Your task to perform on an android device: turn on priority inbox in the gmail app Image 0: 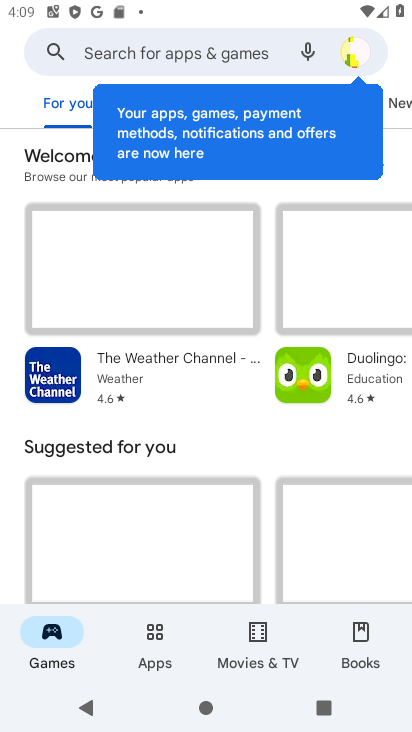
Step 0: press back button
Your task to perform on an android device: turn on priority inbox in the gmail app Image 1: 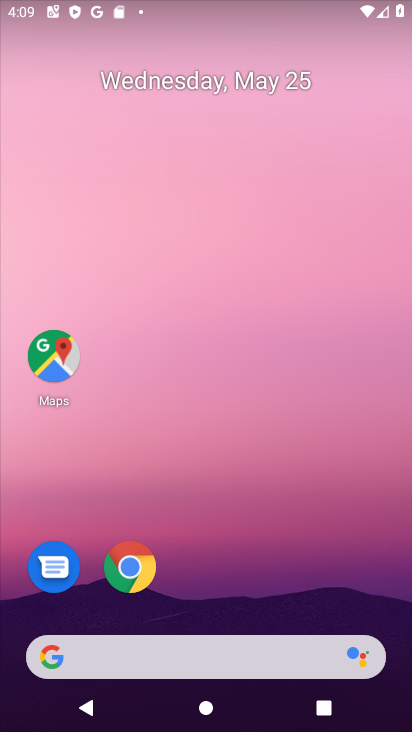
Step 1: drag from (277, 537) to (234, 22)
Your task to perform on an android device: turn on priority inbox in the gmail app Image 2: 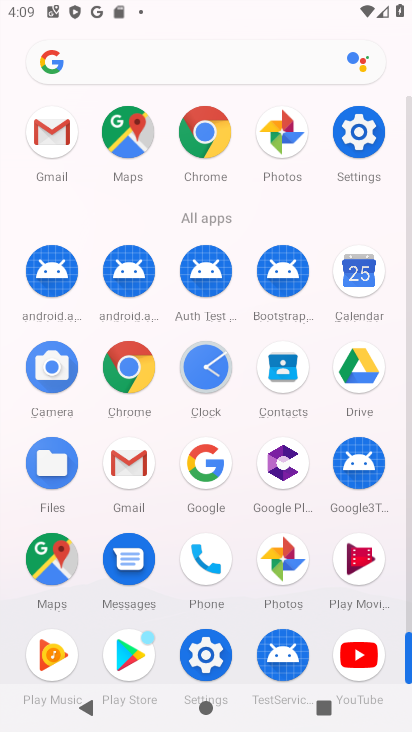
Step 2: drag from (9, 575) to (20, 219)
Your task to perform on an android device: turn on priority inbox in the gmail app Image 3: 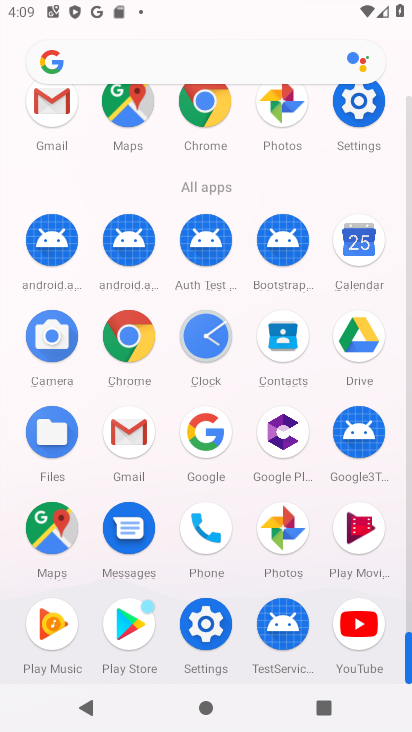
Step 3: click (132, 427)
Your task to perform on an android device: turn on priority inbox in the gmail app Image 4: 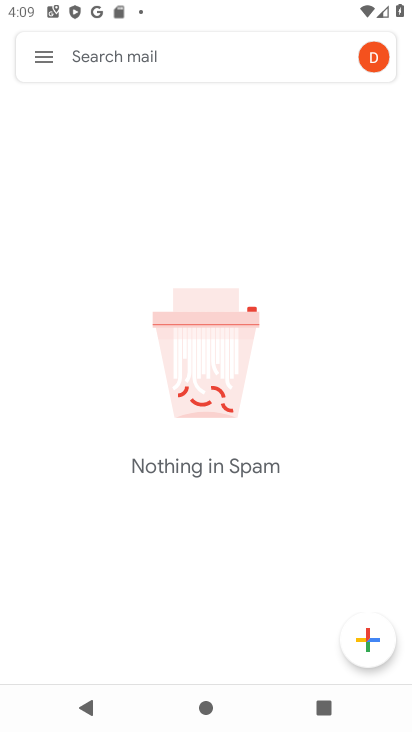
Step 4: click (43, 59)
Your task to perform on an android device: turn on priority inbox in the gmail app Image 5: 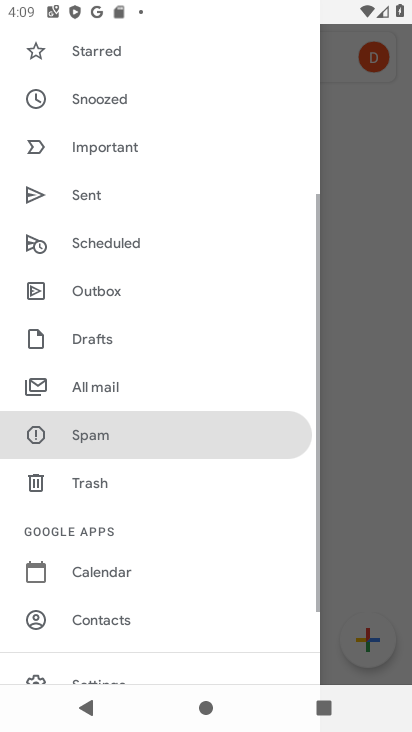
Step 5: drag from (160, 603) to (168, 130)
Your task to perform on an android device: turn on priority inbox in the gmail app Image 6: 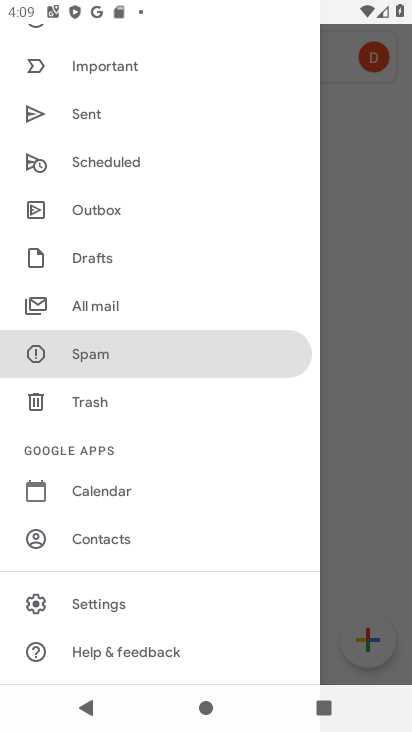
Step 6: click (112, 599)
Your task to perform on an android device: turn on priority inbox in the gmail app Image 7: 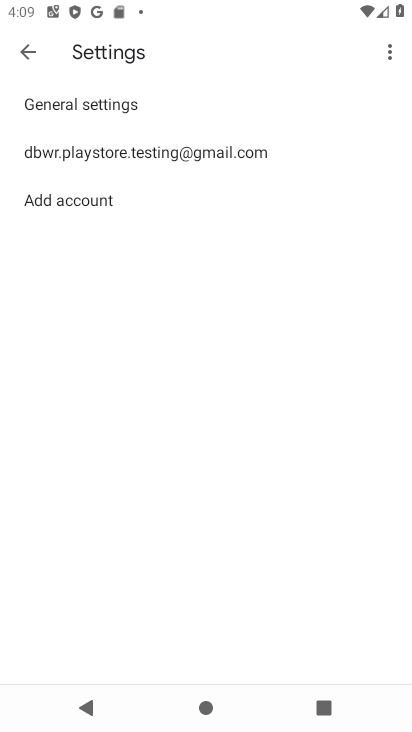
Step 7: click (170, 153)
Your task to perform on an android device: turn on priority inbox in the gmail app Image 8: 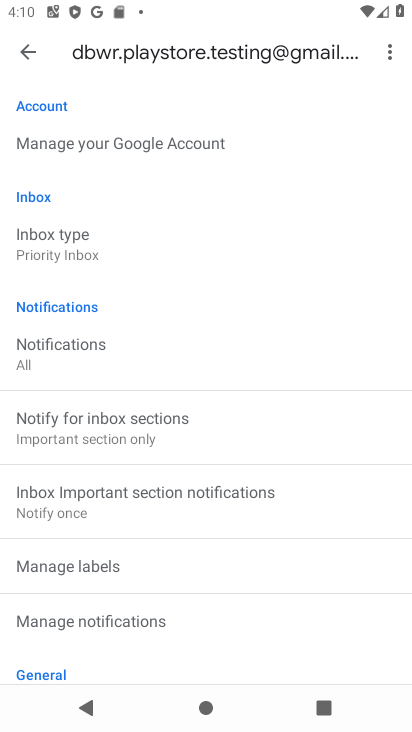
Step 8: task complete